Your task to perform on an android device: Show me popular games on the Play Store Image 0: 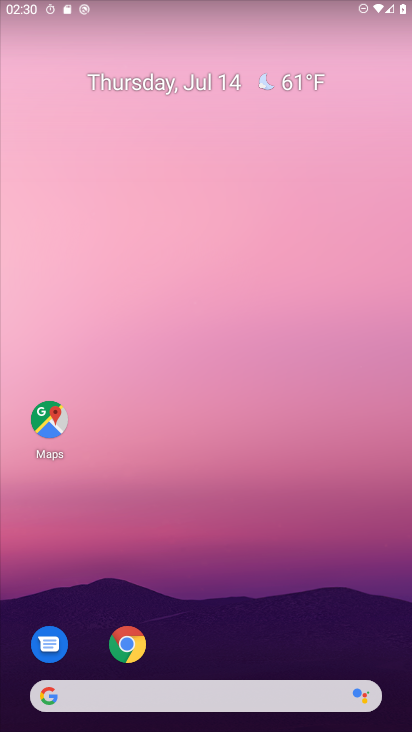
Step 0: drag from (343, 666) to (289, 56)
Your task to perform on an android device: Show me popular games on the Play Store Image 1: 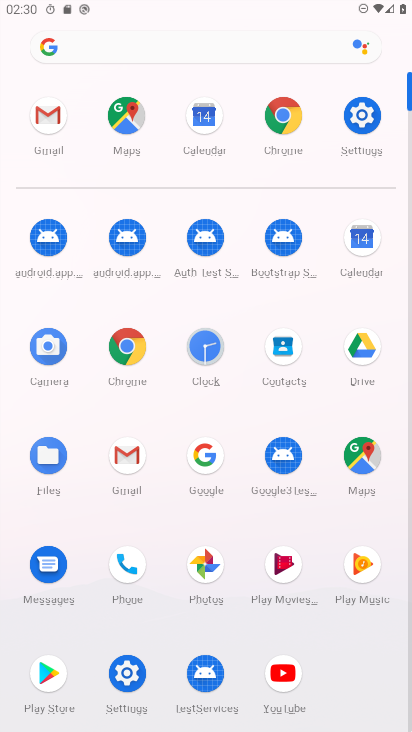
Step 1: click (41, 668)
Your task to perform on an android device: Show me popular games on the Play Store Image 2: 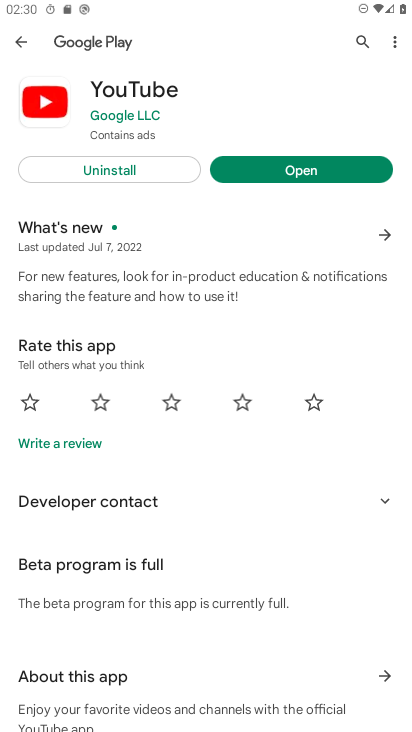
Step 2: click (17, 31)
Your task to perform on an android device: Show me popular games on the Play Store Image 3: 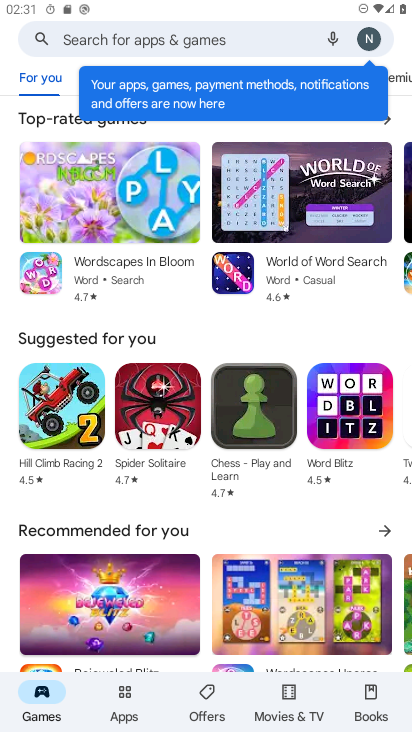
Step 3: task complete